Your task to perform on an android device: turn off notifications settings in the gmail app Image 0: 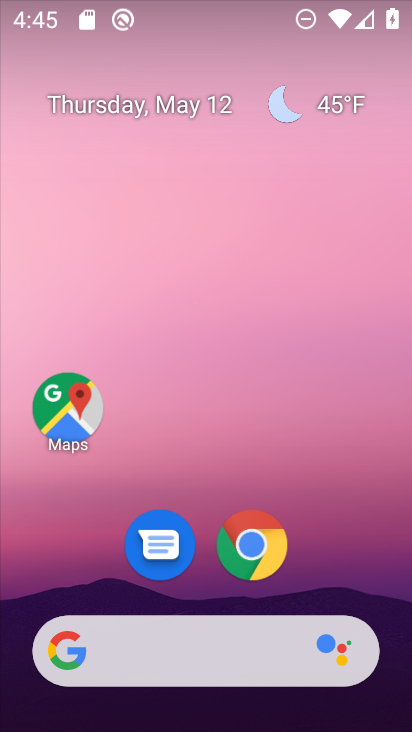
Step 0: drag from (282, 481) to (206, 154)
Your task to perform on an android device: turn off notifications settings in the gmail app Image 1: 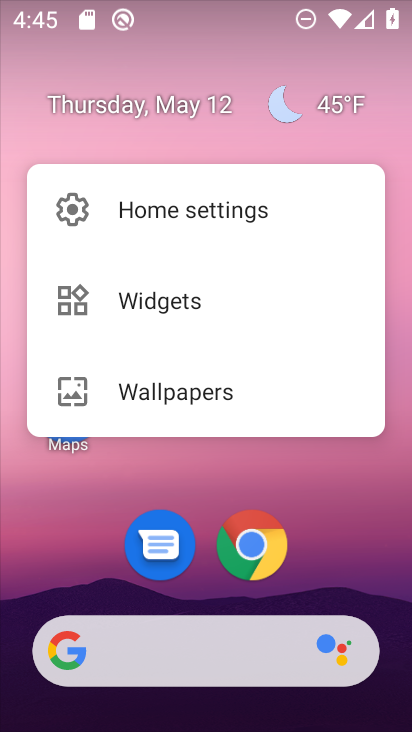
Step 1: click (376, 705)
Your task to perform on an android device: turn off notifications settings in the gmail app Image 2: 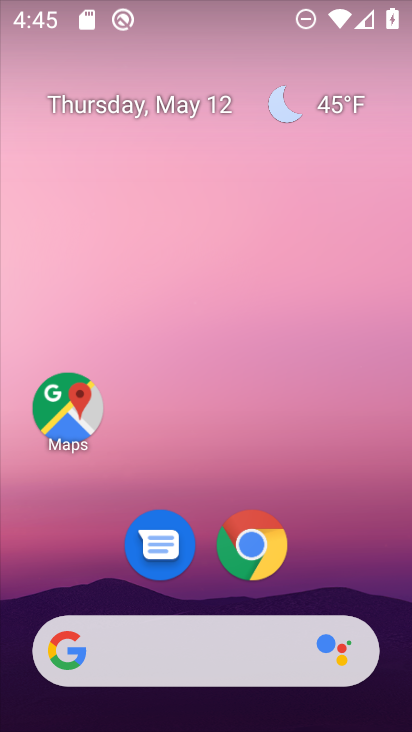
Step 2: drag from (383, 698) to (384, 270)
Your task to perform on an android device: turn off notifications settings in the gmail app Image 3: 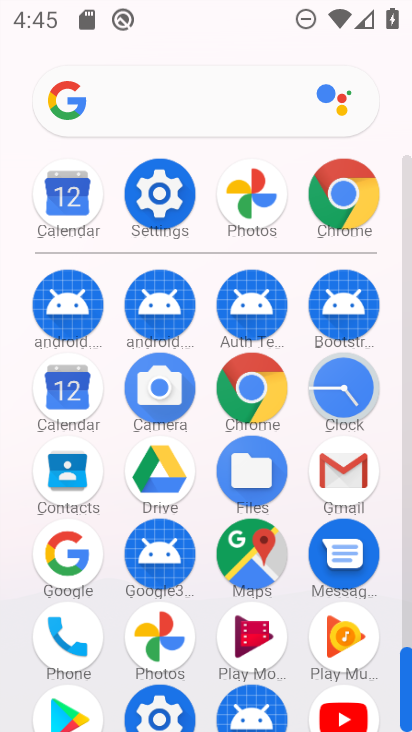
Step 3: click (344, 482)
Your task to perform on an android device: turn off notifications settings in the gmail app Image 4: 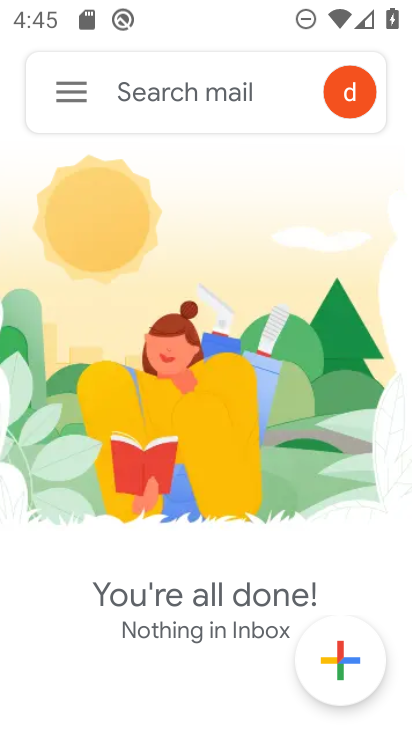
Step 4: click (66, 84)
Your task to perform on an android device: turn off notifications settings in the gmail app Image 5: 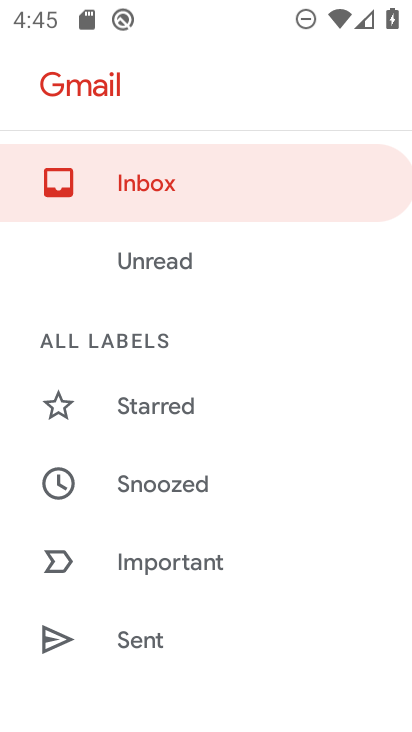
Step 5: drag from (133, 527) to (254, 168)
Your task to perform on an android device: turn off notifications settings in the gmail app Image 6: 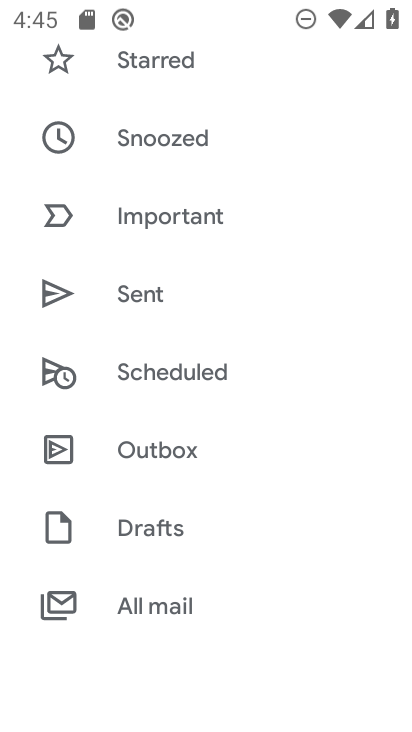
Step 6: drag from (213, 539) to (263, 72)
Your task to perform on an android device: turn off notifications settings in the gmail app Image 7: 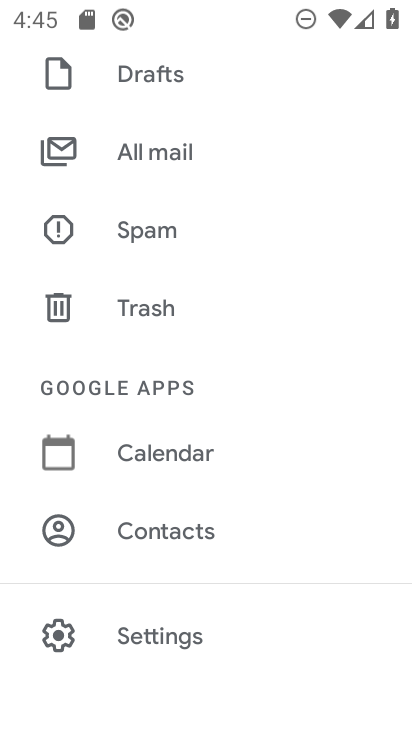
Step 7: drag from (178, 590) to (224, 303)
Your task to perform on an android device: turn off notifications settings in the gmail app Image 8: 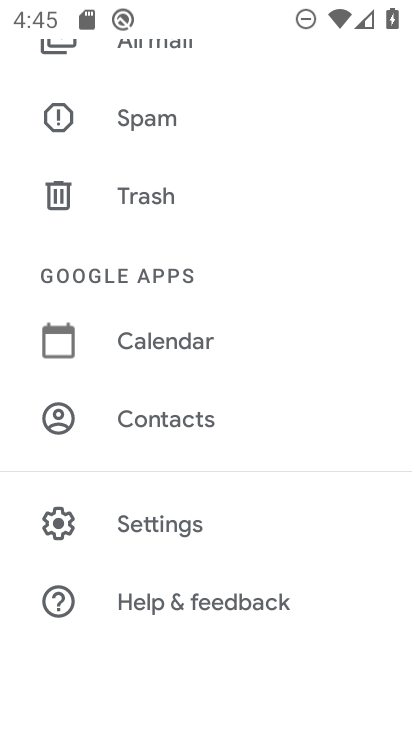
Step 8: click (149, 545)
Your task to perform on an android device: turn off notifications settings in the gmail app Image 9: 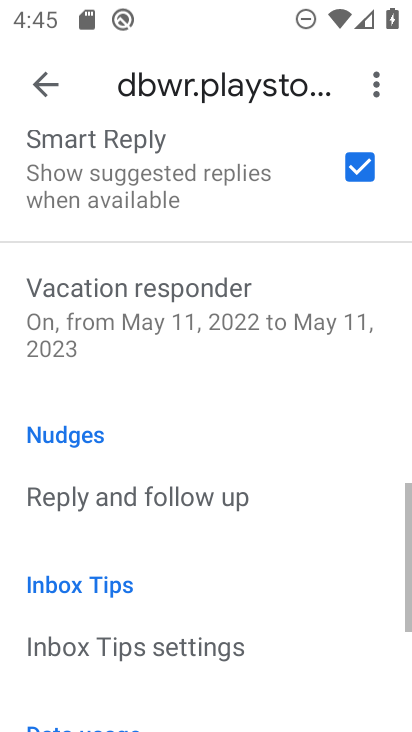
Step 9: drag from (233, 460) to (242, 724)
Your task to perform on an android device: turn off notifications settings in the gmail app Image 10: 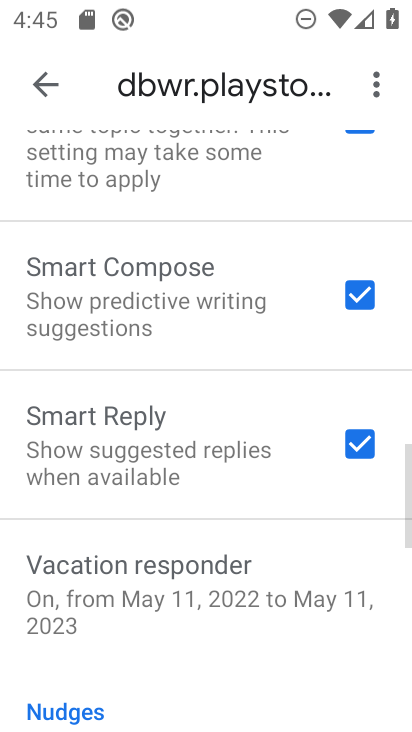
Step 10: drag from (233, 238) to (257, 644)
Your task to perform on an android device: turn off notifications settings in the gmail app Image 11: 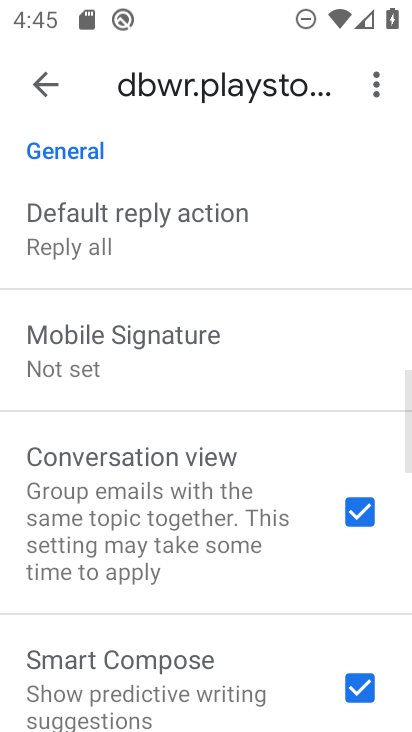
Step 11: drag from (188, 254) to (186, 599)
Your task to perform on an android device: turn off notifications settings in the gmail app Image 12: 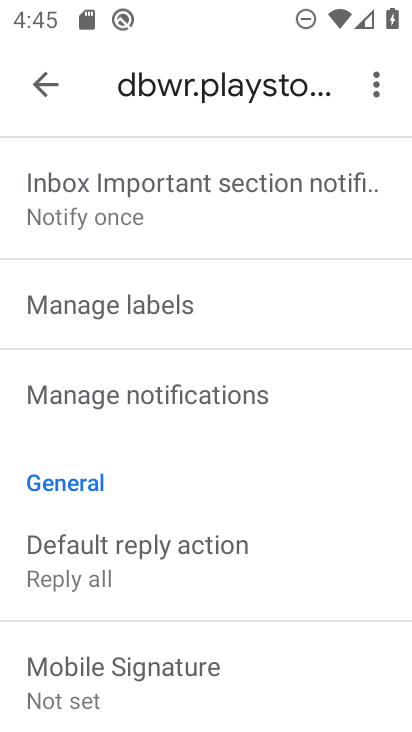
Step 12: click (165, 400)
Your task to perform on an android device: turn off notifications settings in the gmail app Image 13: 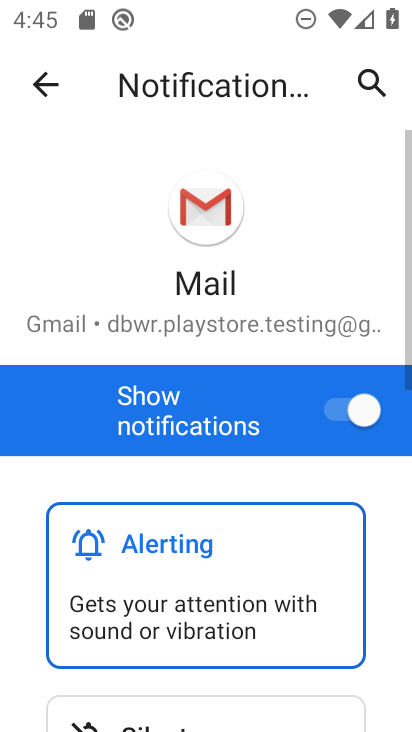
Step 13: click (334, 402)
Your task to perform on an android device: turn off notifications settings in the gmail app Image 14: 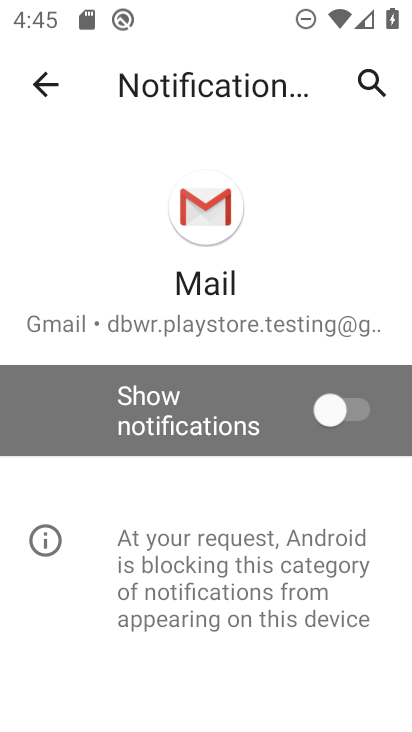
Step 14: task complete